Your task to perform on an android device: change notifications settings Image 0: 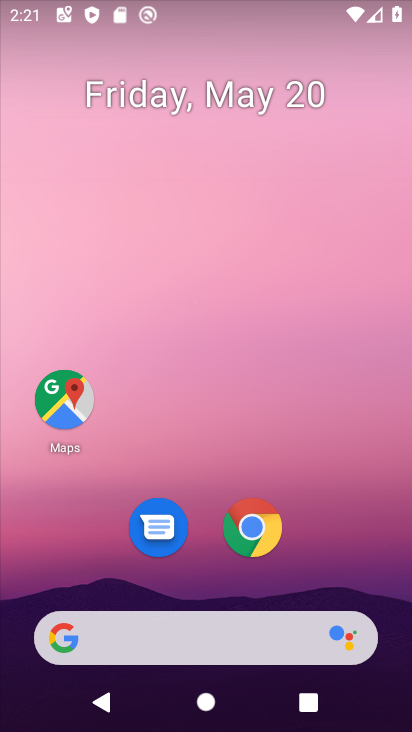
Step 0: drag from (266, 648) to (272, 155)
Your task to perform on an android device: change notifications settings Image 1: 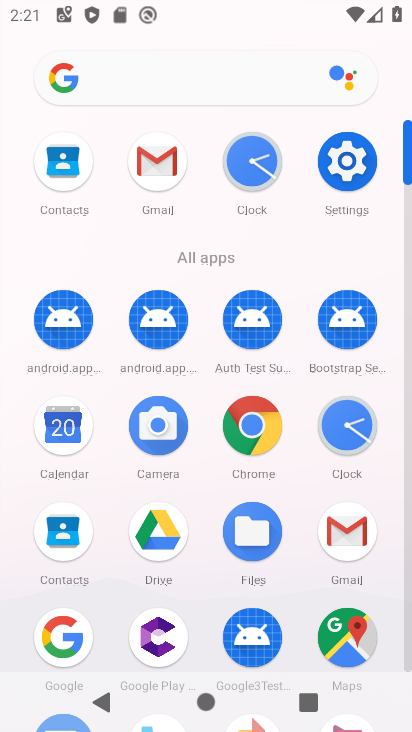
Step 1: click (353, 161)
Your task to perform on an android device: change notifications settings Image 2: 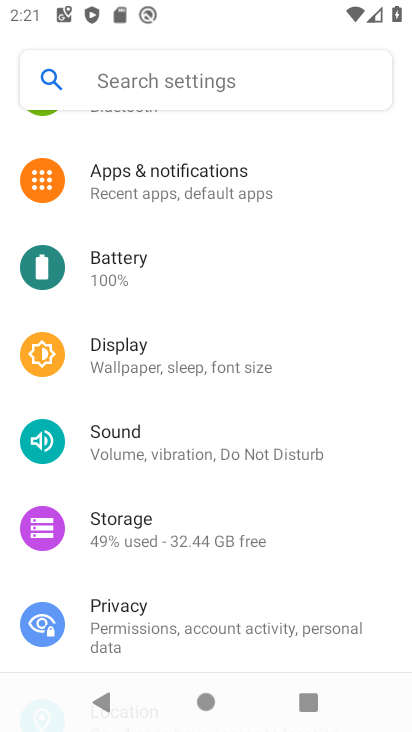
Step 2: click (215, 183)
Your task to perform on an android device: change notifications settings Image 3: 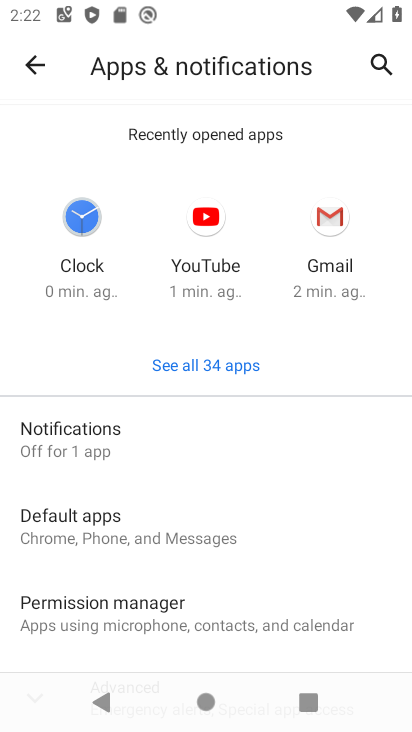
Step 3: click (124, 449)
Your task to perform on an android device: change notifications settings Image 4: 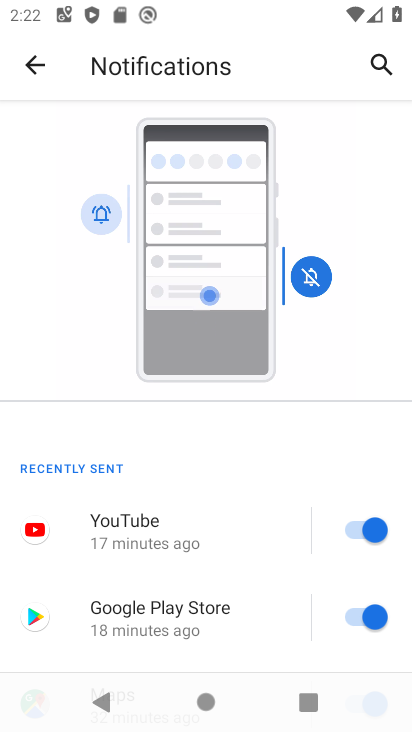
Step 4: click (374, 529)
Your task to perform on an android device: change notifications settings Image 5: 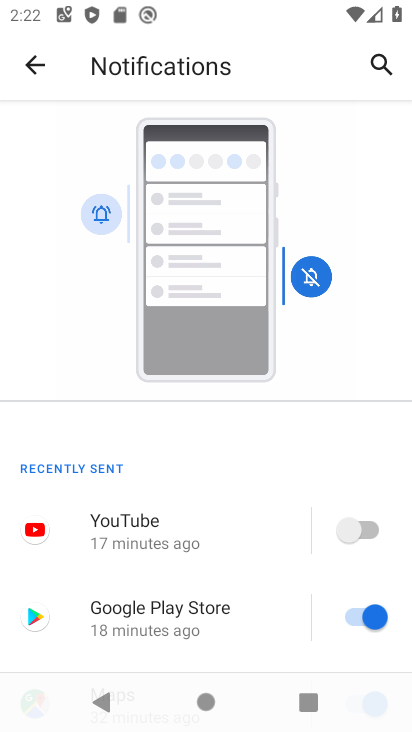
Step 5: task complete